Your task to perform on an android device: Is it going to rain today? Image 0: 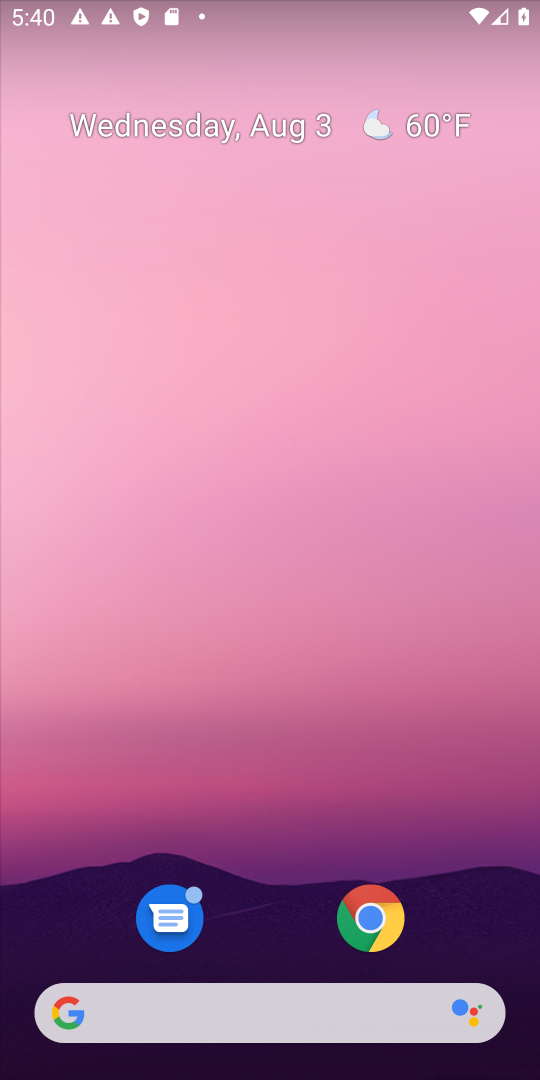
Step 0: click (241, 1007)
Your task to perform on an android device: Is it going to rain today? Image 1: 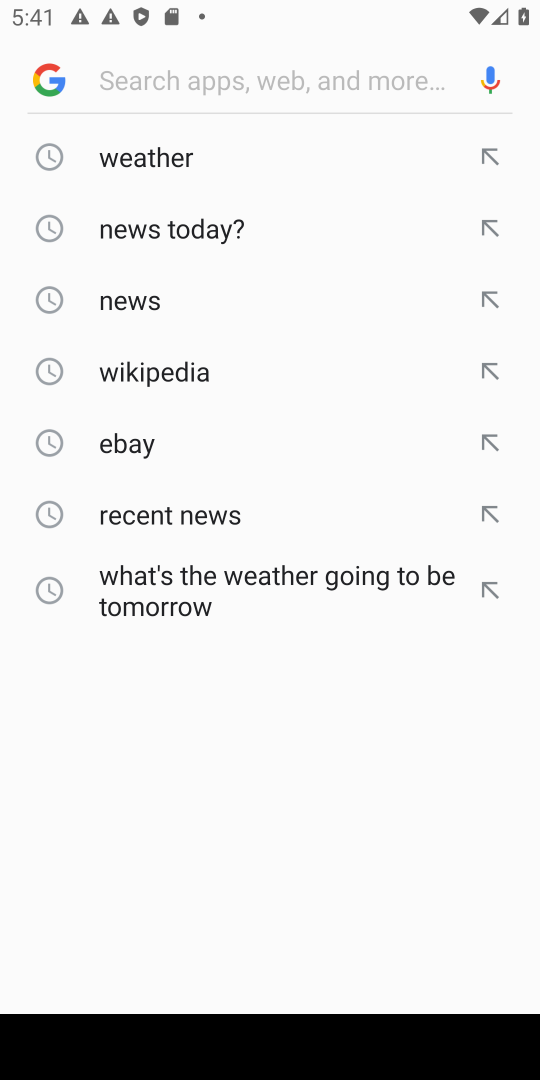
Step 1: type "is it going to rain today?"
Your task to perform on an android device: Is it going to rain today? Image 2: 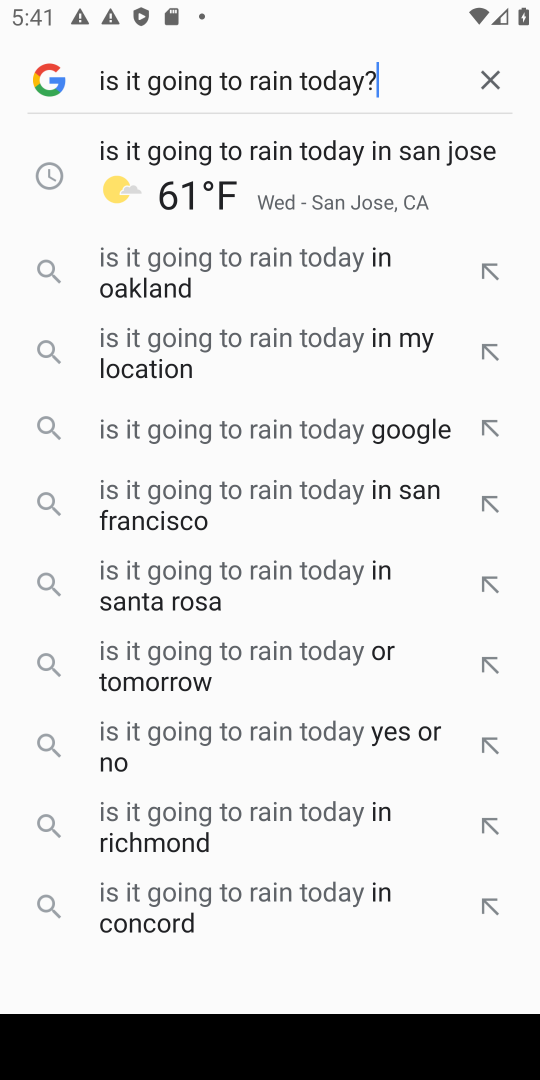
Step 2: click (257, 169)
Your task to perform on an android device: Is it going to rain today? Image 3: 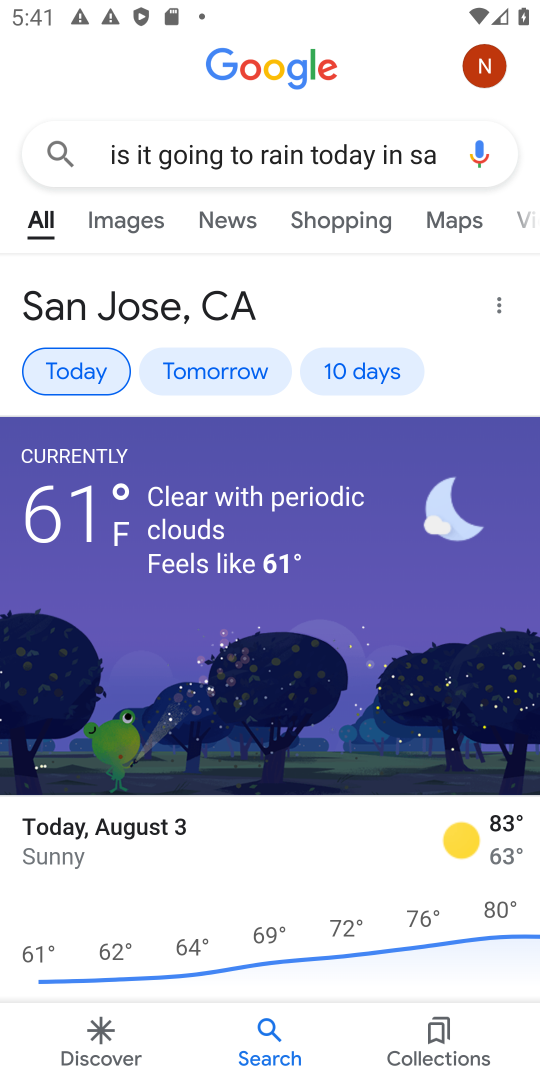
Step 3: task complete